Your task to perform on an android device: set an alarm Image 0: 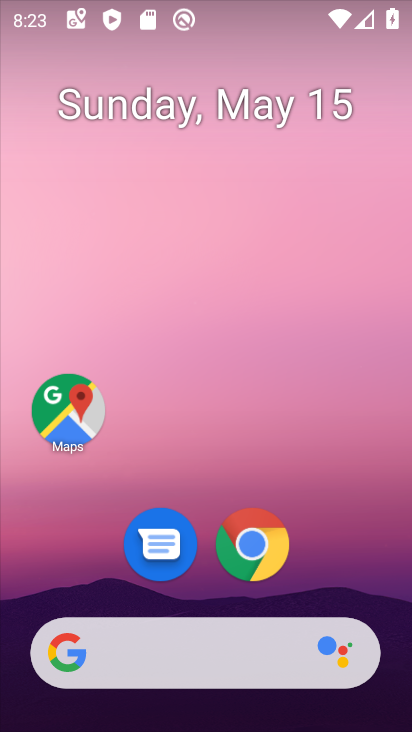
Step 0: drag from (312, 576) to (333, 50)
Your task to perform on an android device: set an alarm Image 1: 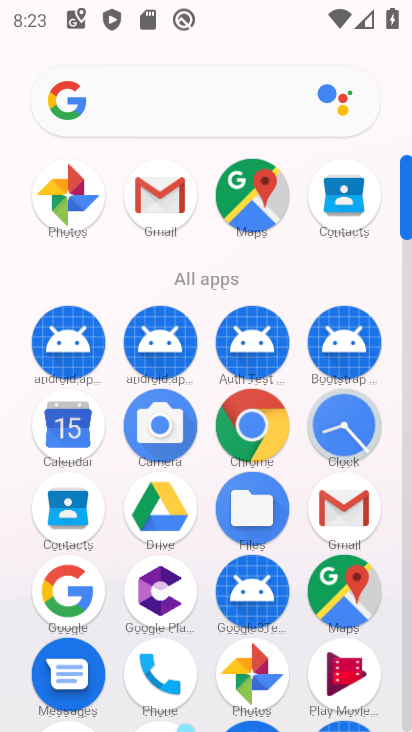
Step 1: click (355, 429)
Your task to perform on an android device: set an alarm Image 2: 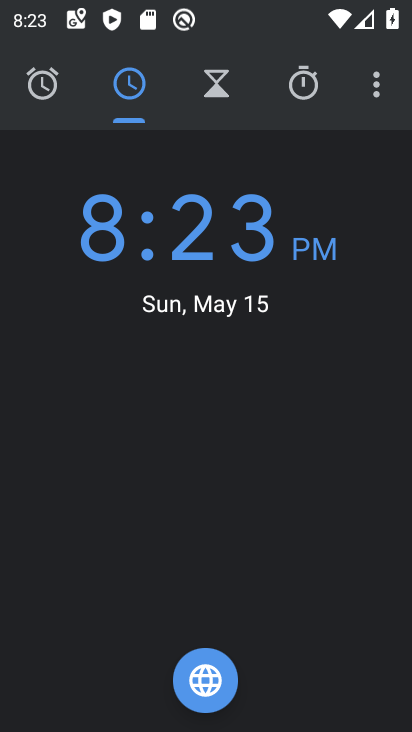
Step 2: click (41, 91)
Your task to perform on an android device: set an alarm Image 3: 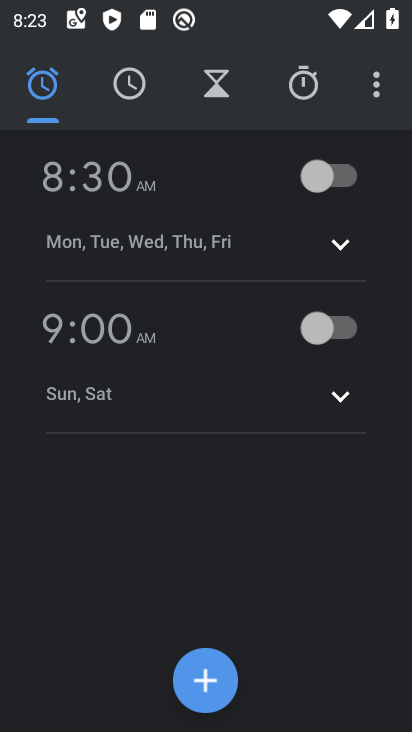
Step 3: click (204, 685)
Your task to perform on an android device: set an alarm Image 4: 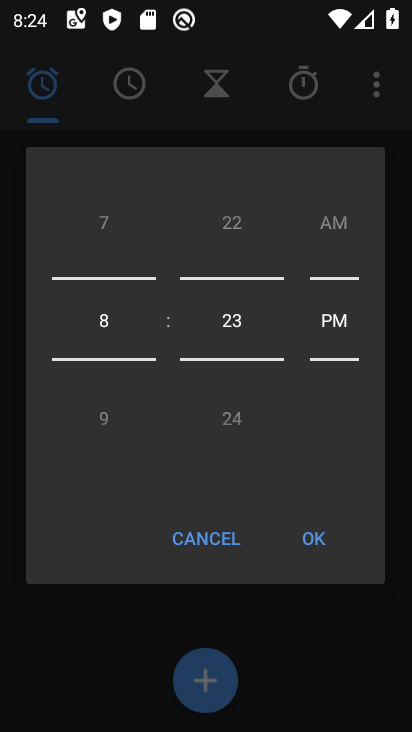
Step 4: click (323, 549)
Your task to perform on an android device: set an alarm Image 5: 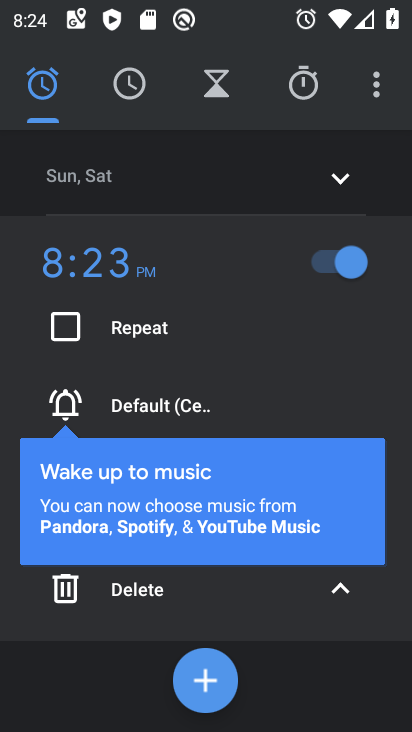
Step 5: click (334, 594)
Your task to perform on an android device: set an alarm Image 6: 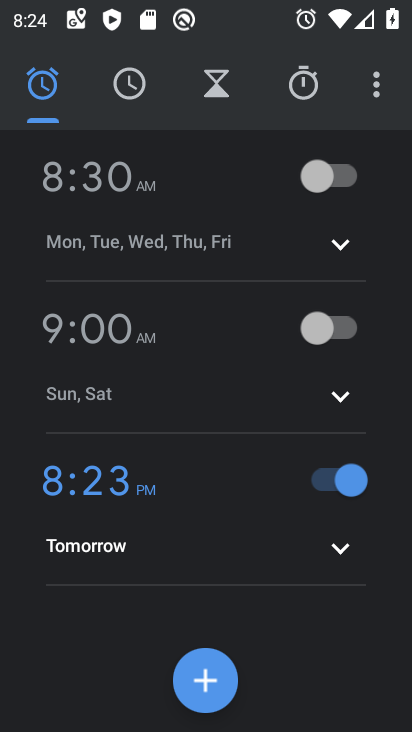
Step 6: task complete